Your task to perform on an android device: Go to CNN.com Image 0: 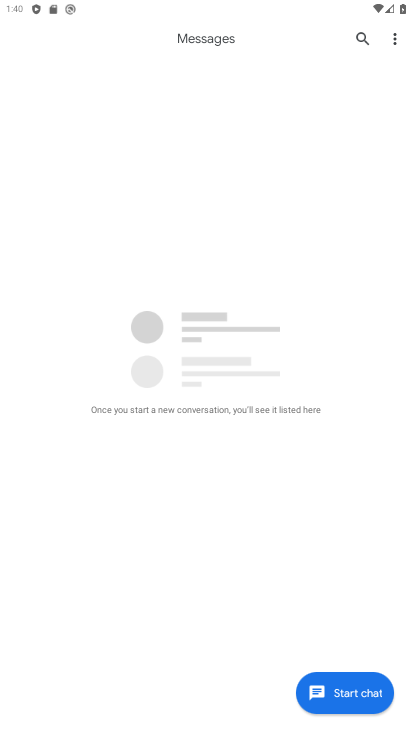
Step 0: press home button
Your task to perform on an android device: Go to CNN.com Image 1: 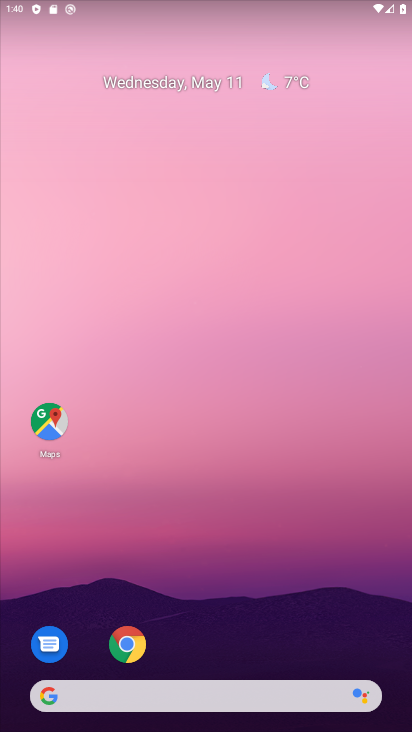
Step 1: click (135, 637)
Your task to perform on an android device: Go to CNN.com Image 2: 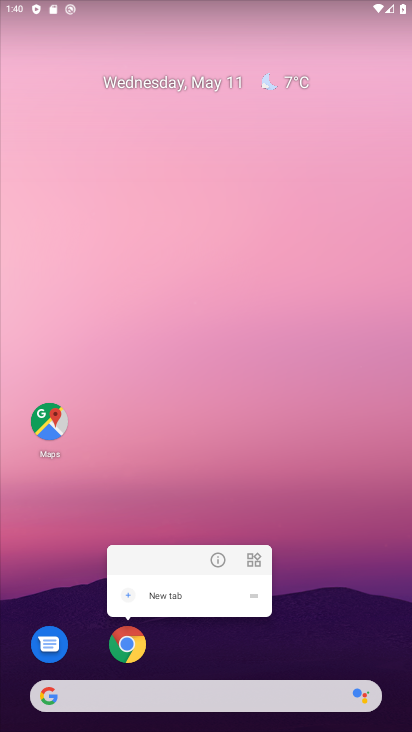
Step 2: click (135, 637)
Your task to perform on an android device: Go to CNN.com Image 3: 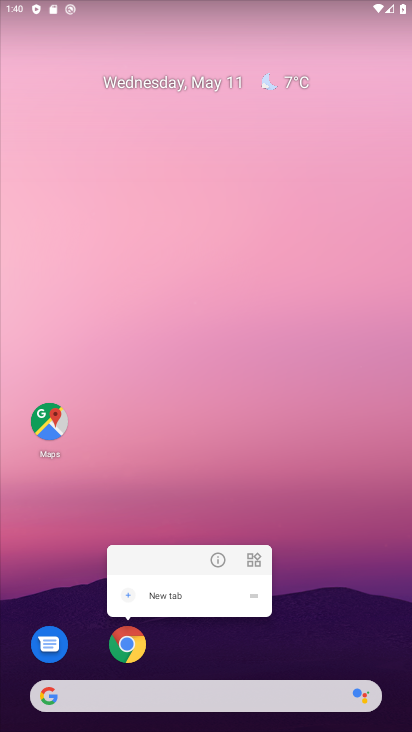
Step 3: click (137, 635)
Your task to perform on an android device: Go to CNN.com Image 4: 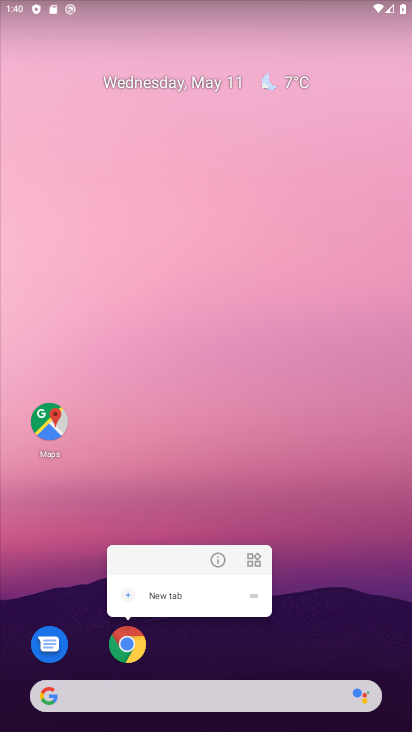
Step 4: click (139, 645)
Your task to perform on an android device: Go to CNN.com Image 5: 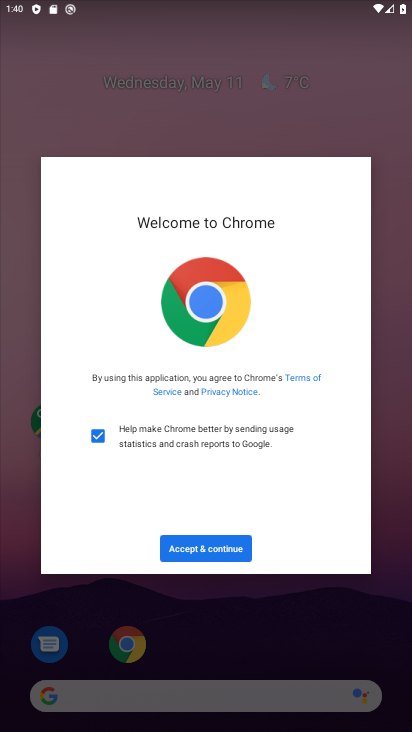
Step 5: click (232, 559)
Your task to perform on an android device: Go to CNN.com Image 6: 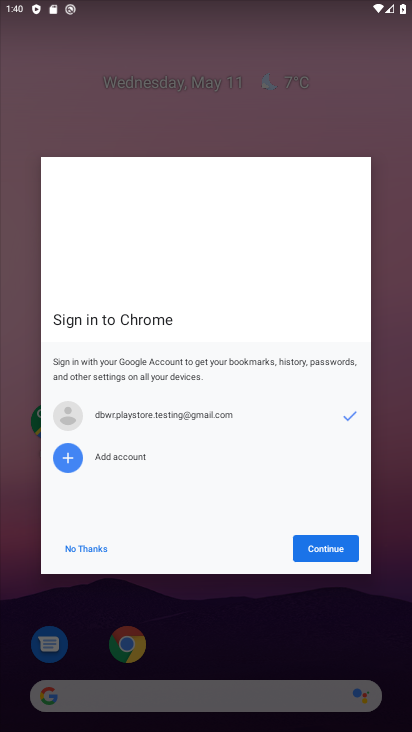
Step 6: click (306, 560)
Your task to perform on an android device: Go to CNN.com Image 7: 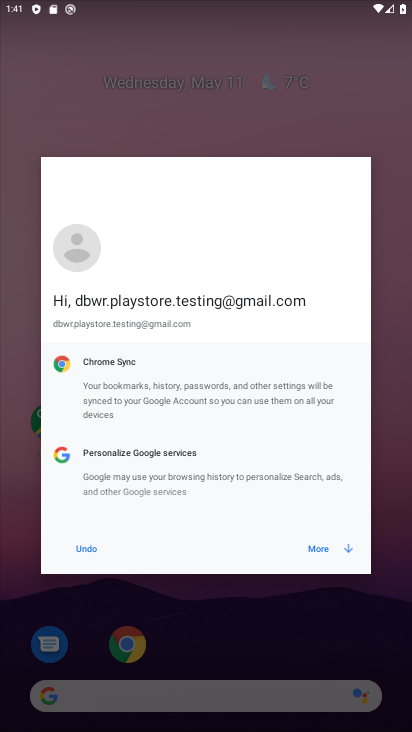
Step 7: click (306, 559)
Your task to perform on an android device: Go to CNN.com Image 8: 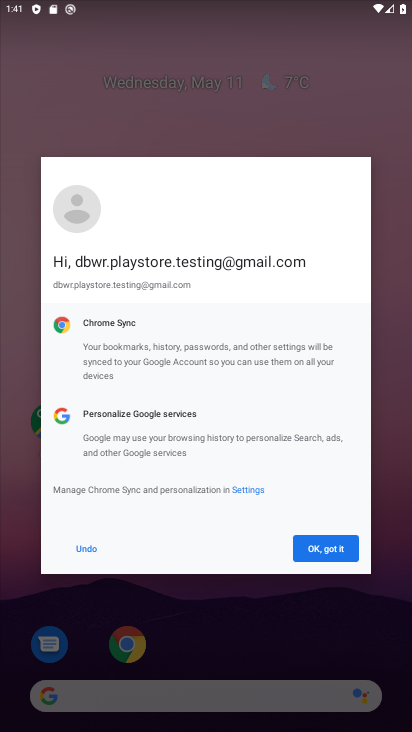
Step 8: click (316, 552)
Your task to perform on an android device: Go to CNN.com Image 9: 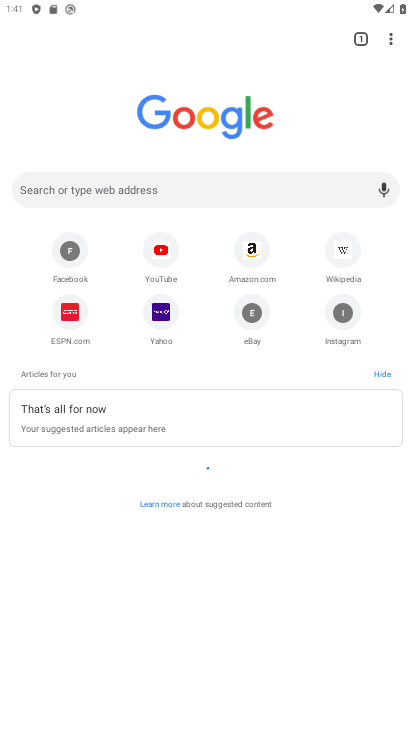
Step 9: click (213, 193)
Your task to perform on an android device: Go to CNN.com Image 10: 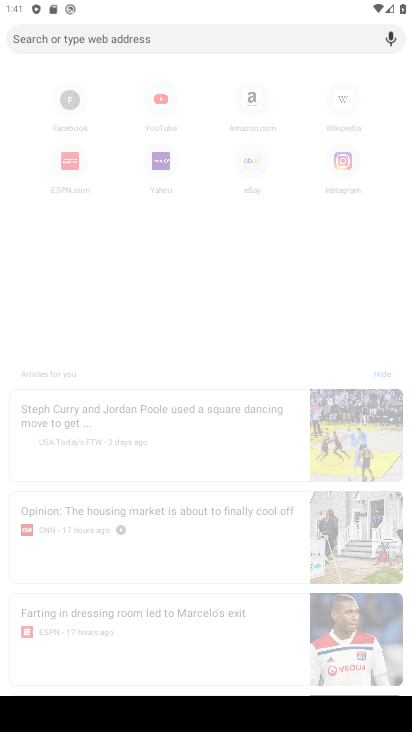
Step 10: click (138, 35)
Your task to perform on an android device: Go to CNN.com Image 11: 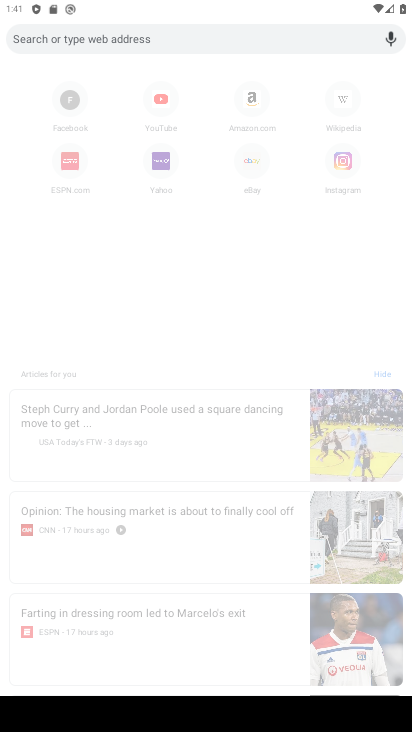
Step 11: type "CNN.com"
Your task to perform on an android device: Go to CNN.com Image 12: 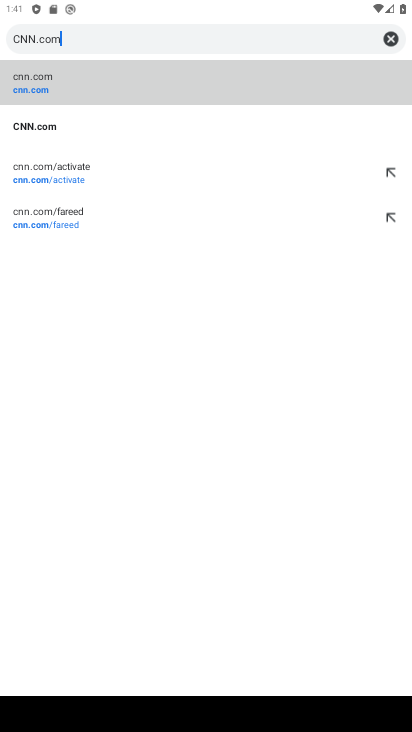
Step 12: click (127, 126)
Your task to perform on an android device: Go to CNN.com Image 13: 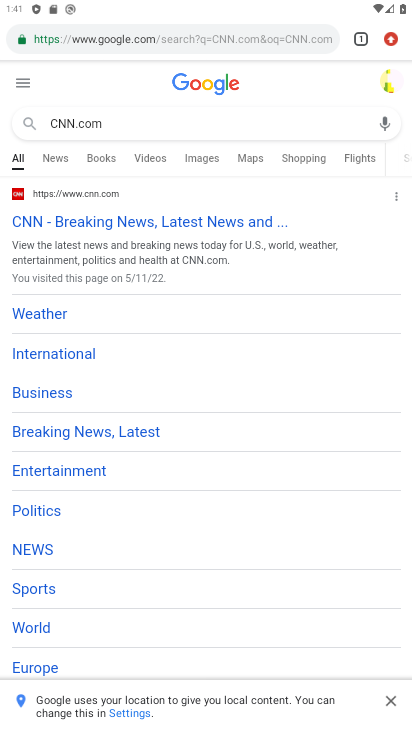
Step 13: click (153, 229)
Your task to perform on an android device: Go to CNN.com Image 14: 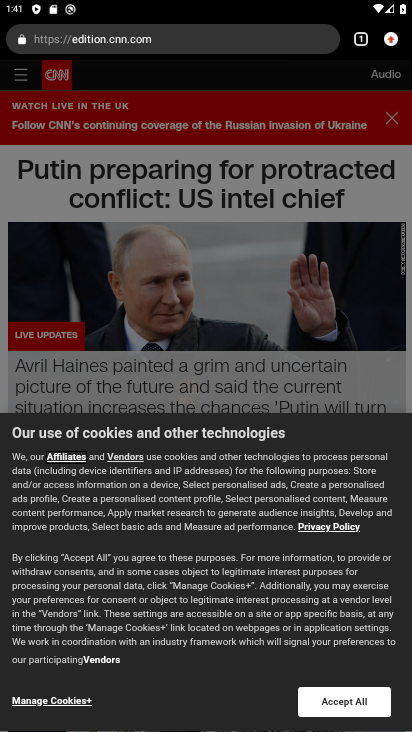
Step 14: click (368, 705)
Your task to perform on an android device: Go to CNN.com Image 15: 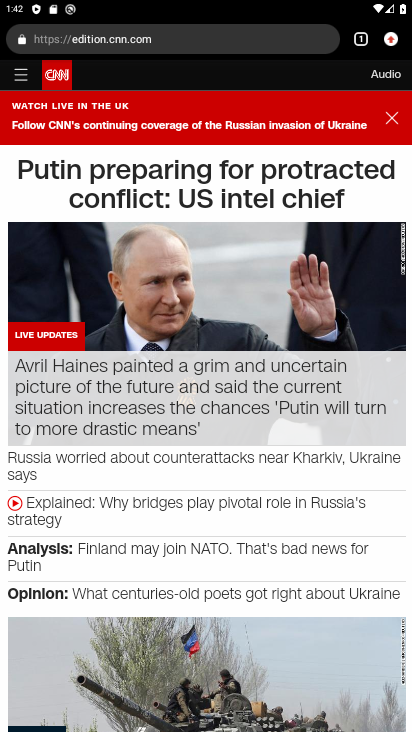
Step 15: task complete